Your task to perform on an android device: turn off airplane mode Image 0: 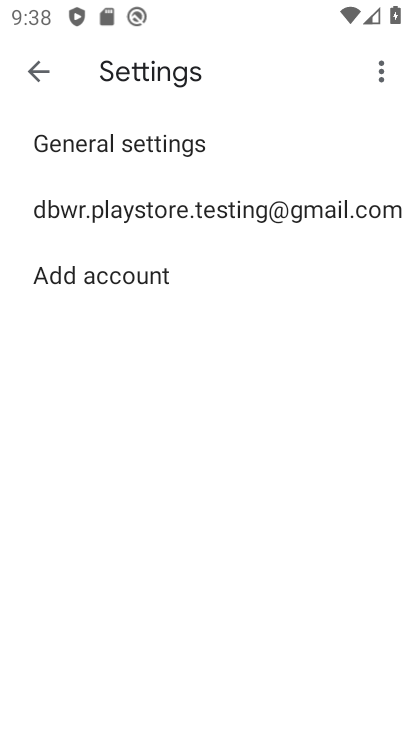
Step 0: press back button
Your task to perform on an android device: turn off airplane mode Image 1: 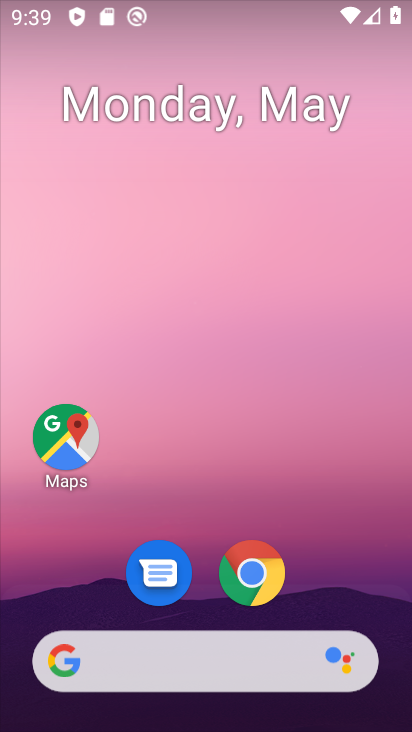
Step 1: drag from (221, 514) to (221, 113)
Your task to perform on an android device: turn off airplane mode Image 2: 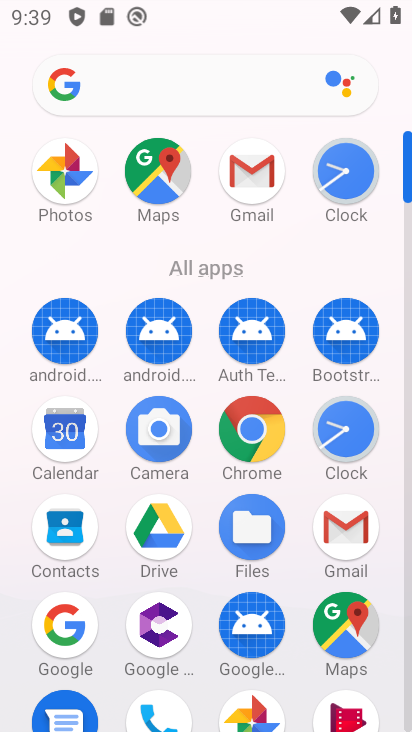
Step 2: drag from (289, 10) to (215, 566)
Your task to perform on an android device: turn off airplane mode Image 3: 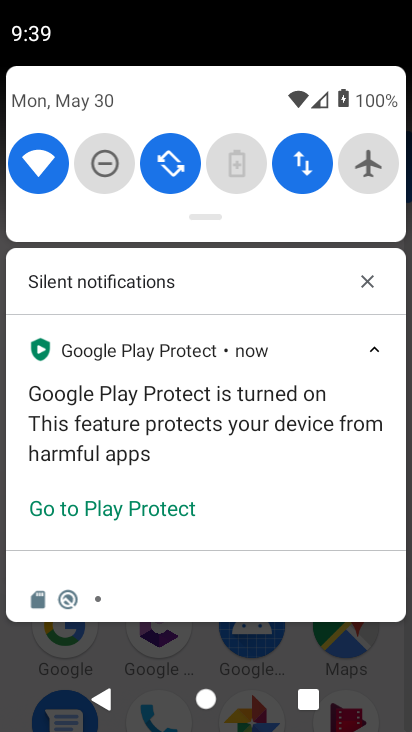
Step 3: click (367, 278)
Your task to perform on an android device: turn off airplane mode Image 4: 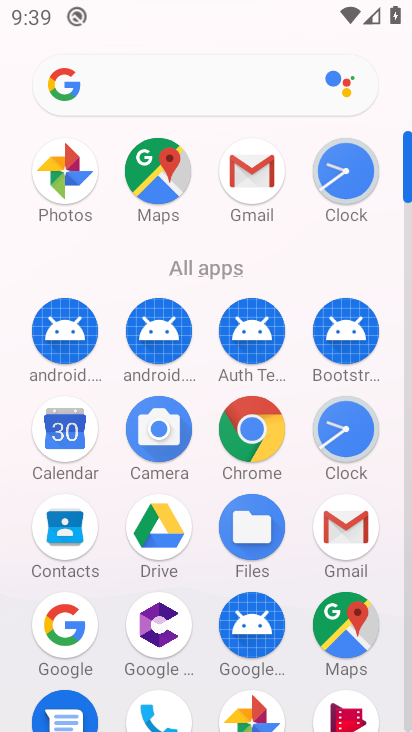
Step 4: task complete